Your task to perform on an android device: Is it going to rain this weekend? Image 0: 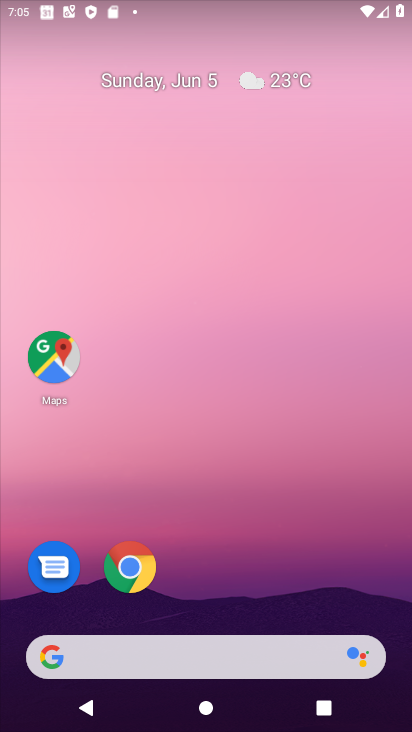
Step 0: drag from (386, 657) to (219, 79)
Your task to perform on an android device: Is it going to rain this weekend? Image 1: 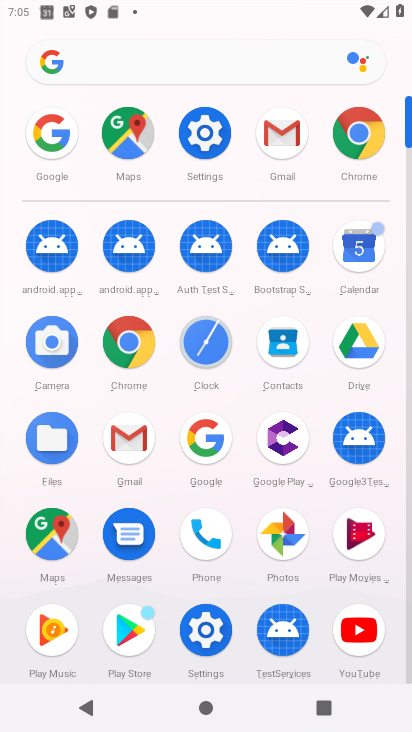
Step 1: click (189, 439)
Your task to perform on an android device: Is it going to rain this weekend? Image 2: 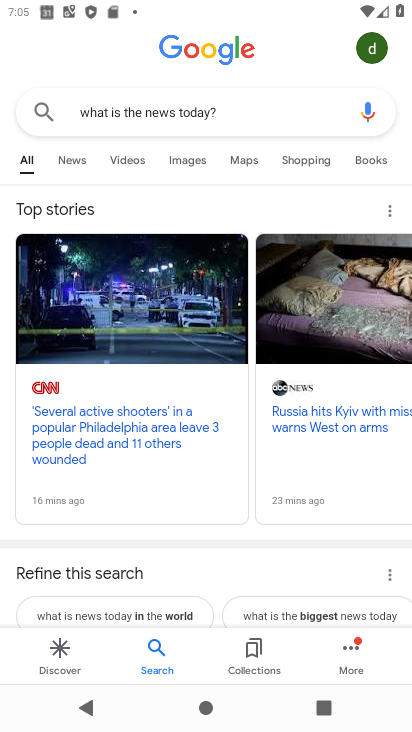
Step 2: press back button
Your task to perform on an android device: Is it going to rain this weekend? Image 3: 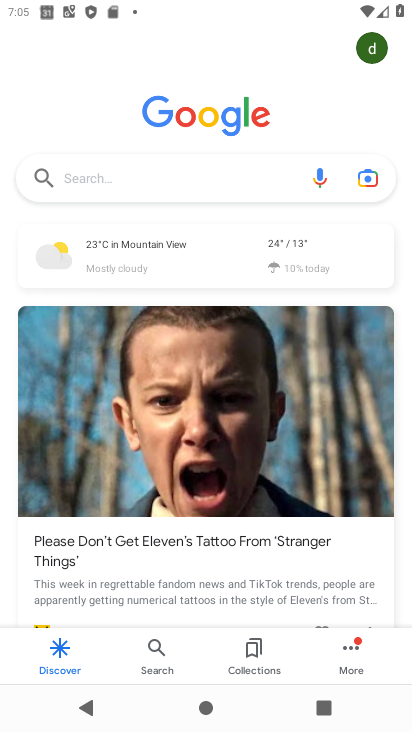
Step 3: click (96, 179)
Your task to perform on an android device: Is it going to rain this weekend? Image 4: 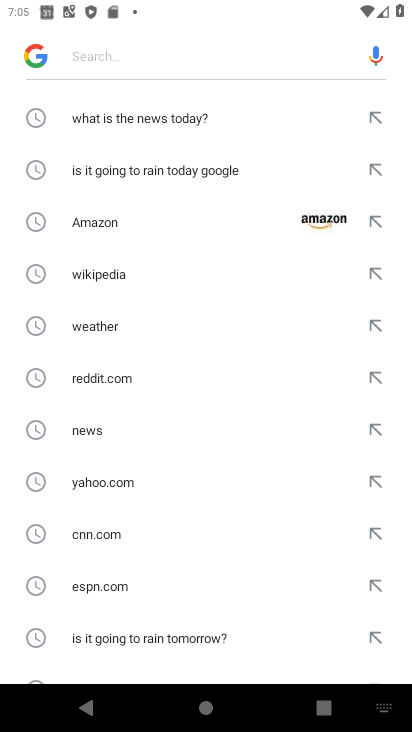
Step 4: drag from (180, 635) to (205, 403)
Your task to perform on an android device: Is it going to rain this weekend? Image 5: 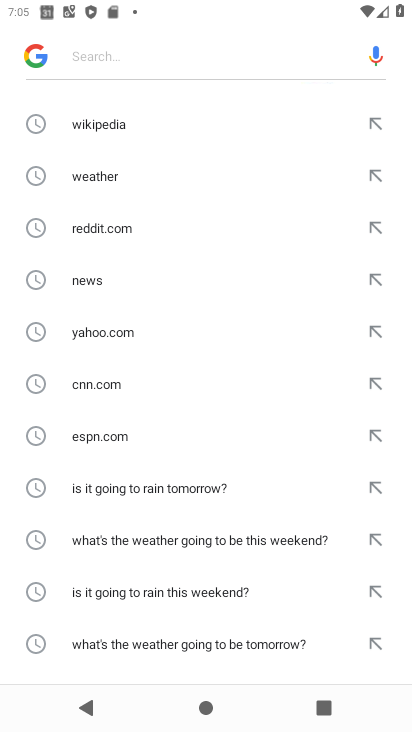
Step 5: click (203, 384)
Your task to perform on an android device: Is it going to rain this weekend? Image 6: 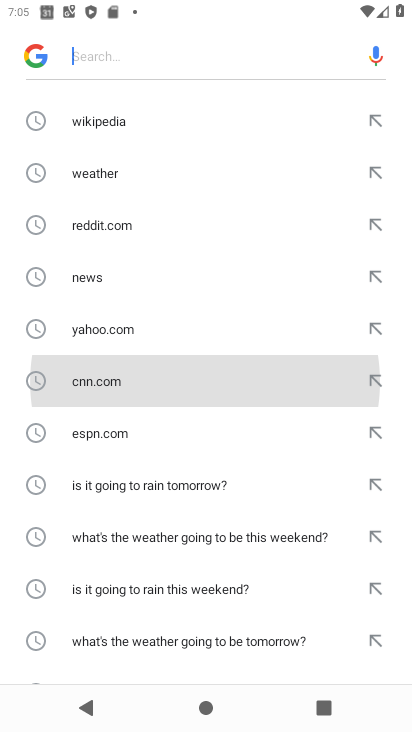
Step 6: click (188, 311)
Your task to perform on an android device: Is it going to rain this weekend? Image 7: 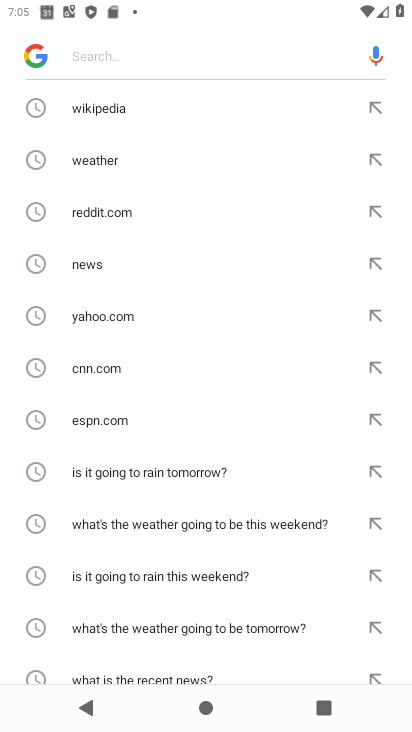
Step 7: click (176, 579)
Your task to perform on an android device: Is it going to rain this weekend? Image 8: 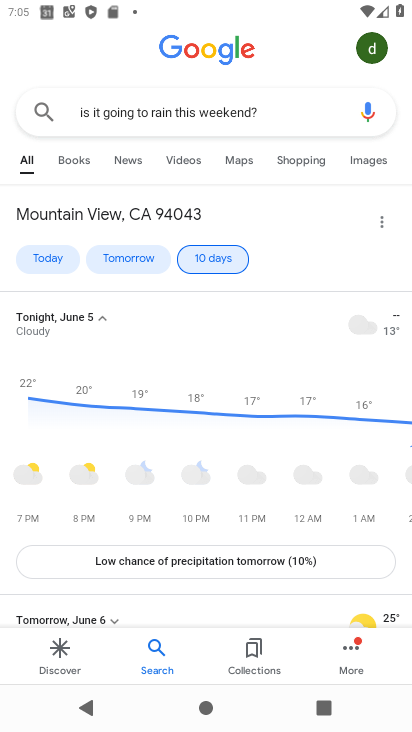
Step 8: task complete